Your task to perform on an android device: Add amazon basics triple a to the cart on bestbuy Image 0: 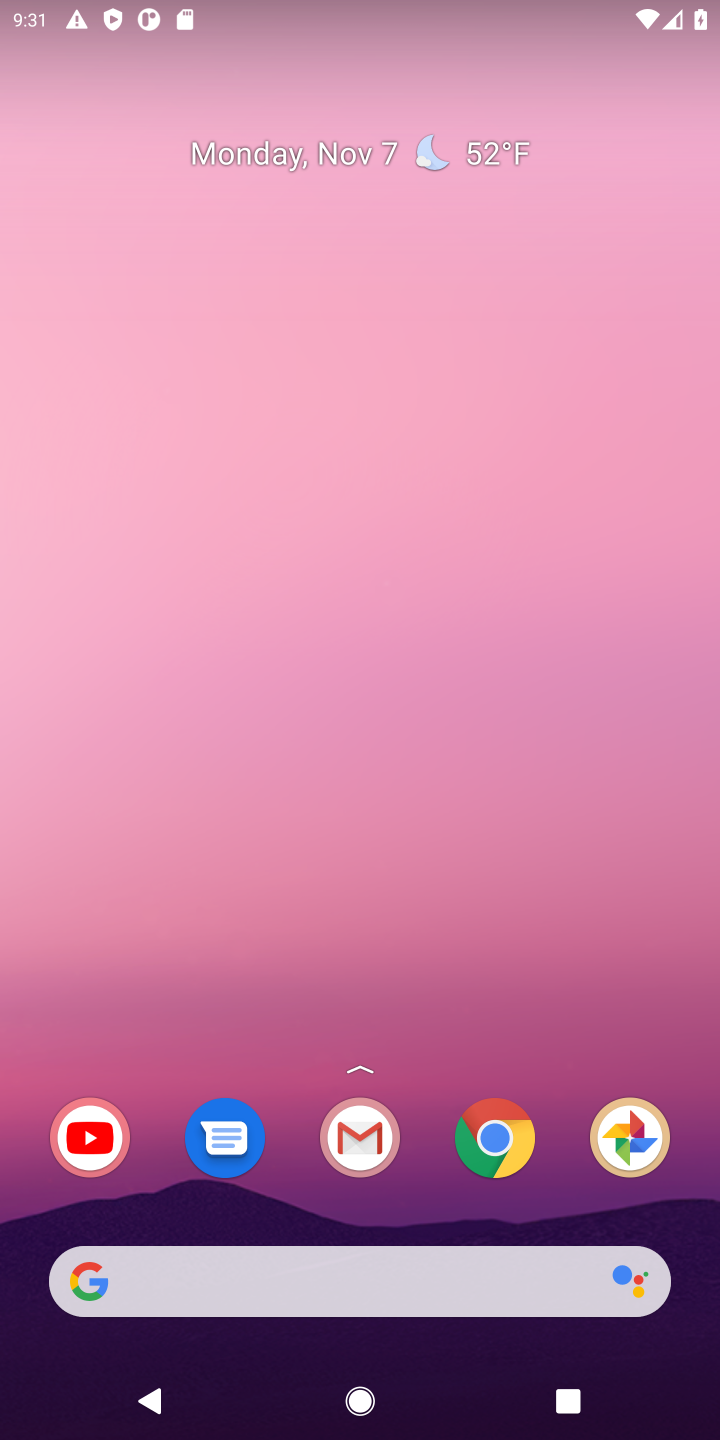
Step 0: click (492, 1150)
Your task to perform on an android device: Add amazon basics triple a to the cart on bestbuy Image 1: 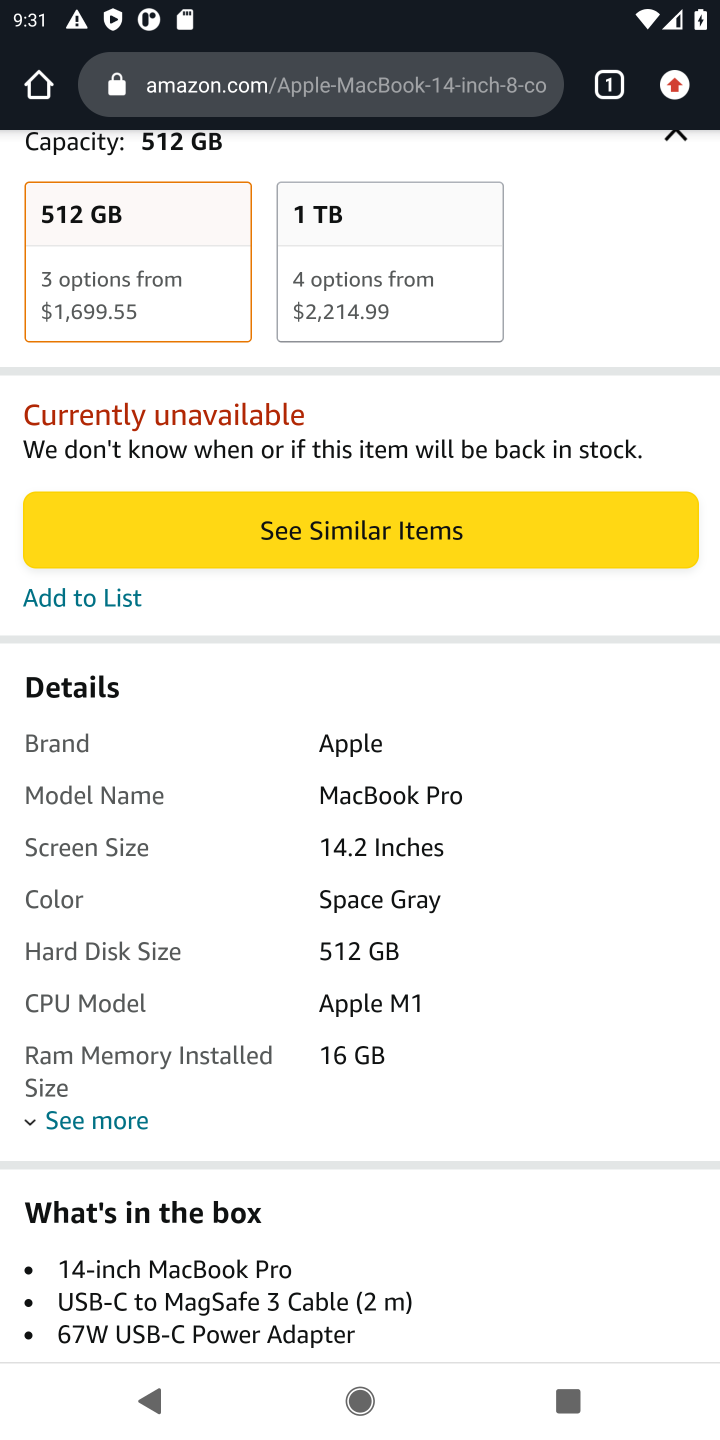
Step 1: click (182, 96)
Your task to perform on an android device: Add amazon basics triple a to the cart on bestbuy Image 2: 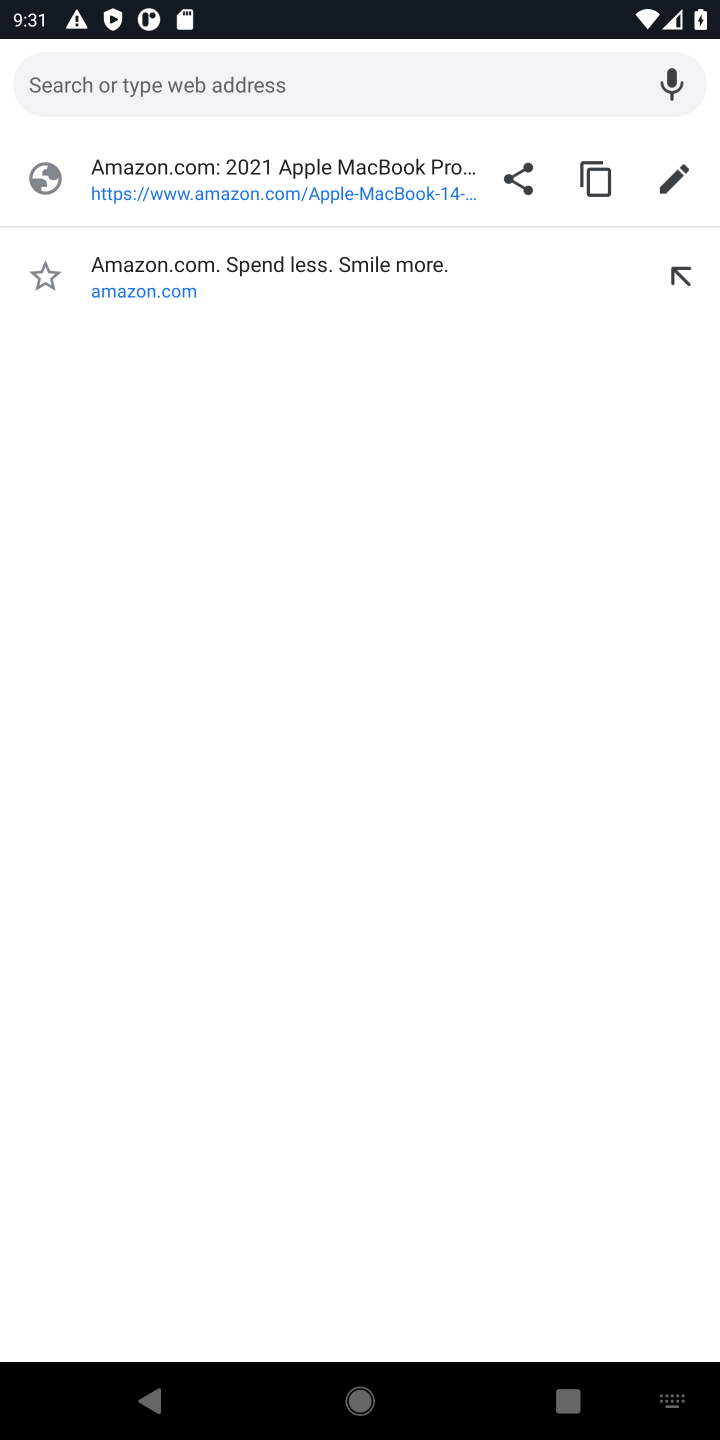
Step 2: type "amazon"
Your task to perform on an android device: Add amazon basics triple a to the cart on bestbuy Image 3: 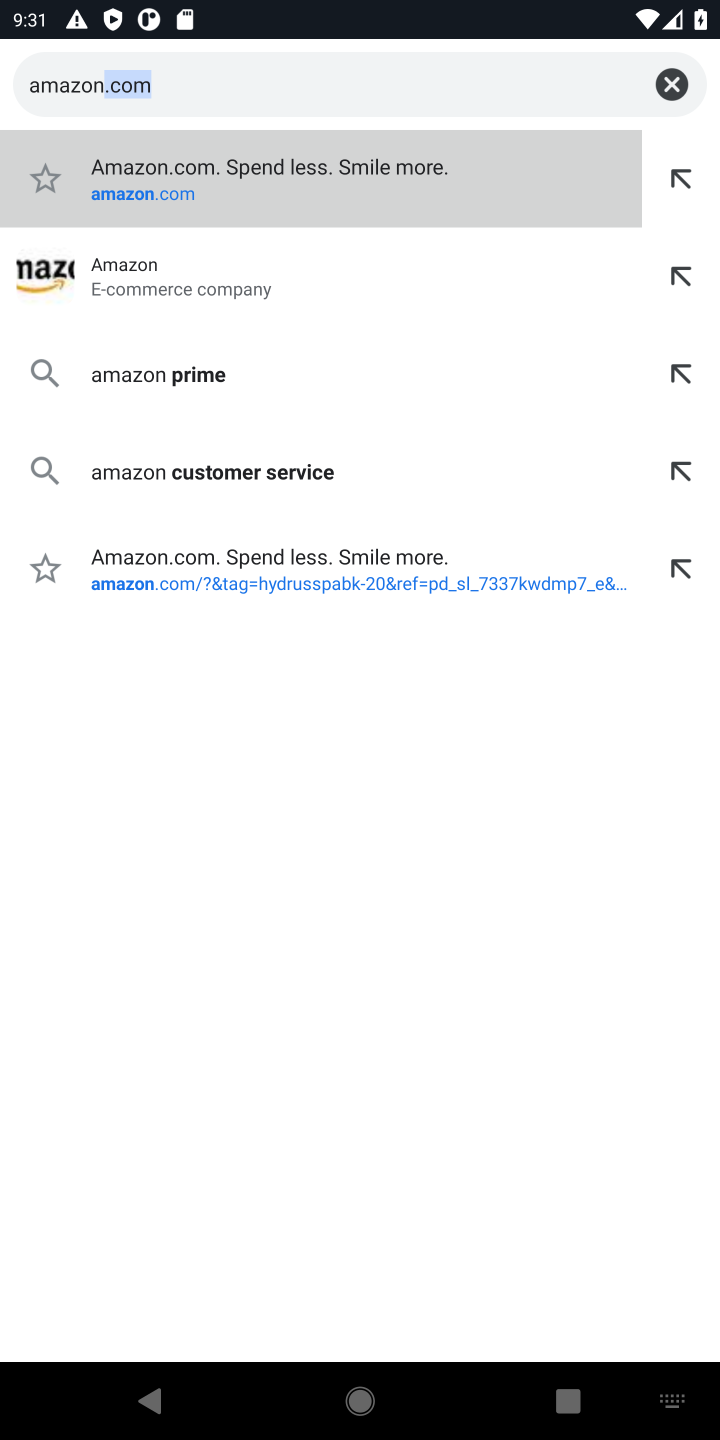
Step 3: click (115, 268)
Your task to perform on an android device: Add amazon basics triple a to the cart on bestbuy Image 4: 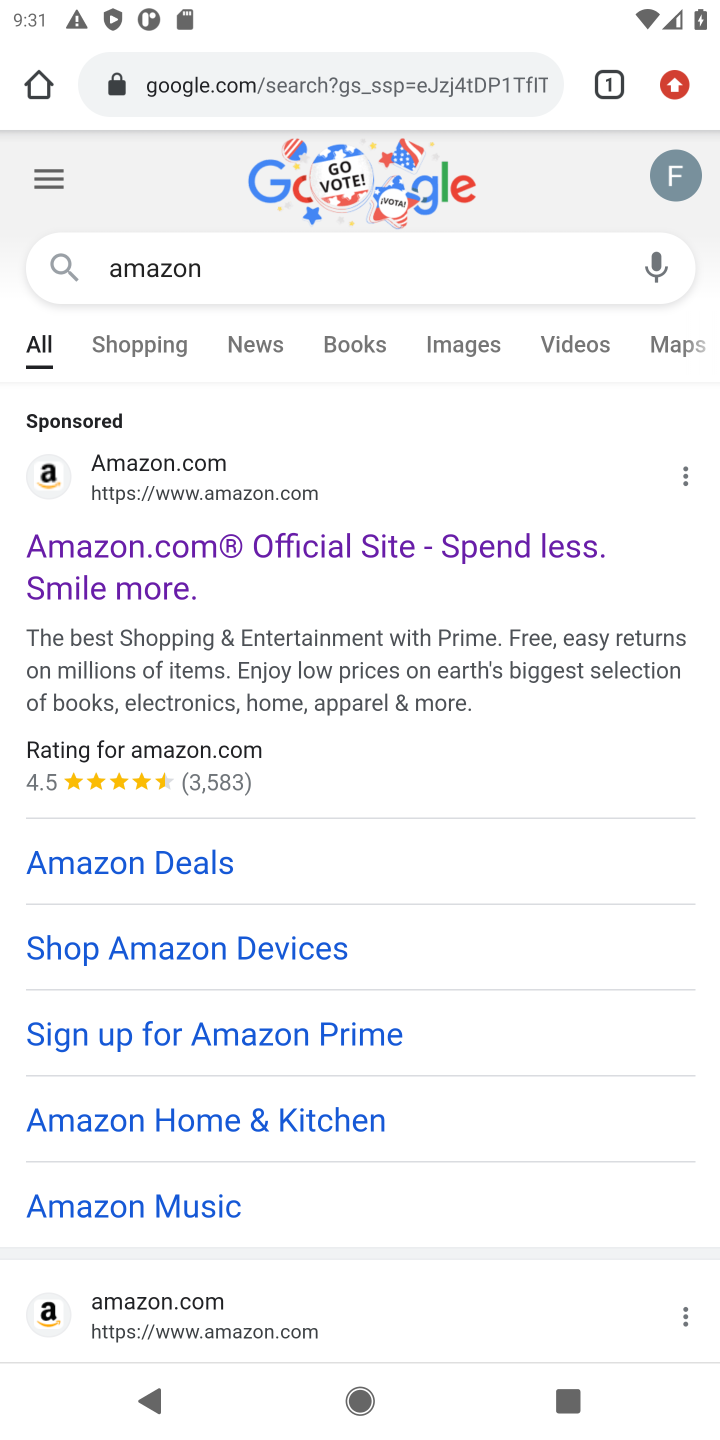
Step 4: click (166, 551)
Your task to perform on an android device: Add amazon basics triple a to the cart on bestbuy Image 5: 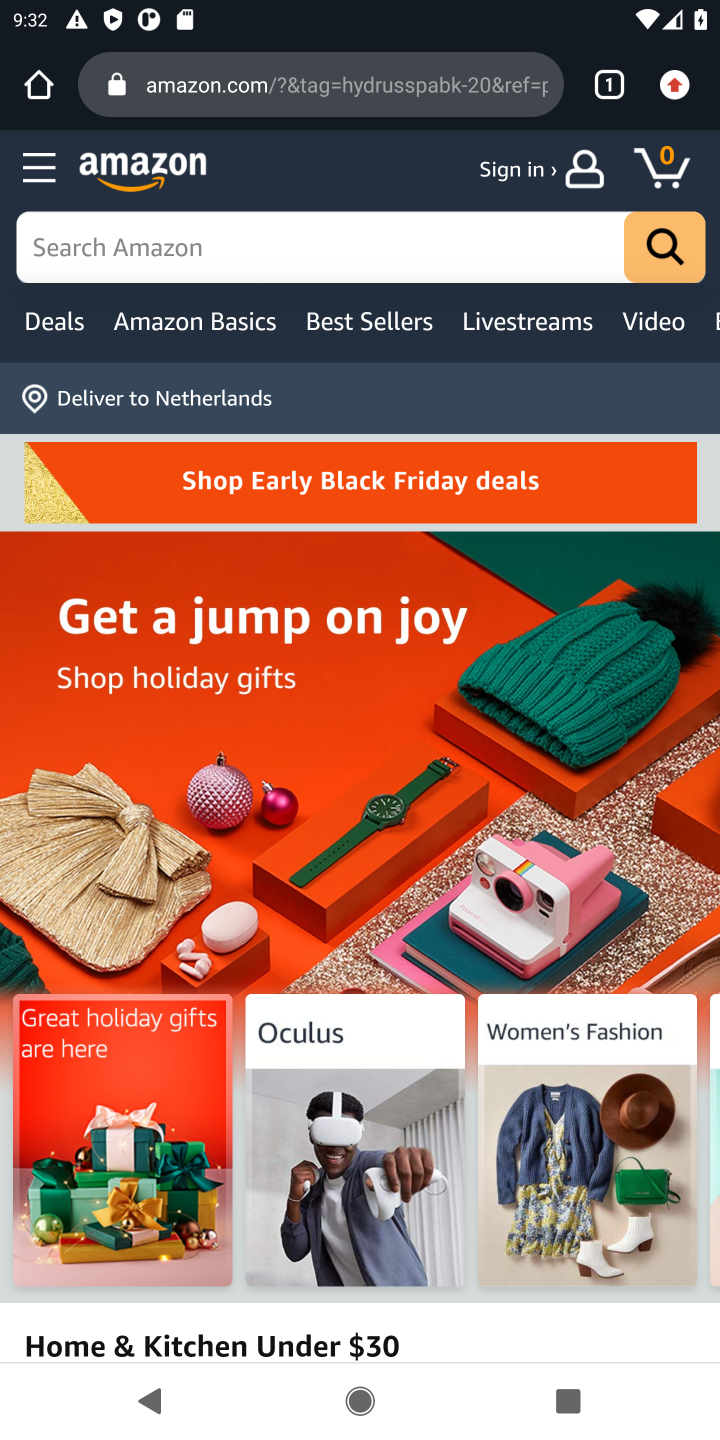
Step 5: click (403, 249)
Your task to perform on an android device: Add amazon basics triple a to the cart on bestbuy Image 6: 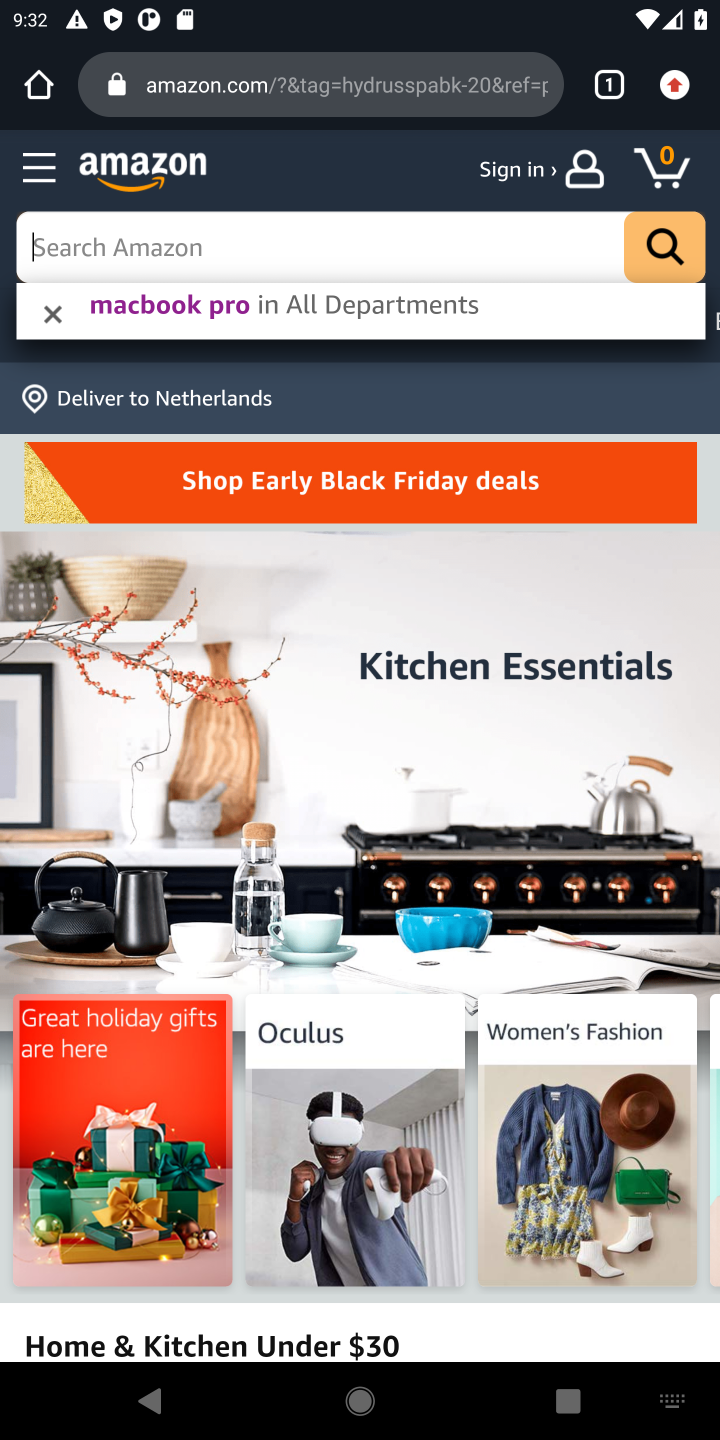
Step 6: type "basic triple "
Your task to perform on an android device: Add amazon basics triple a to the cart on bestbuy Image 7: 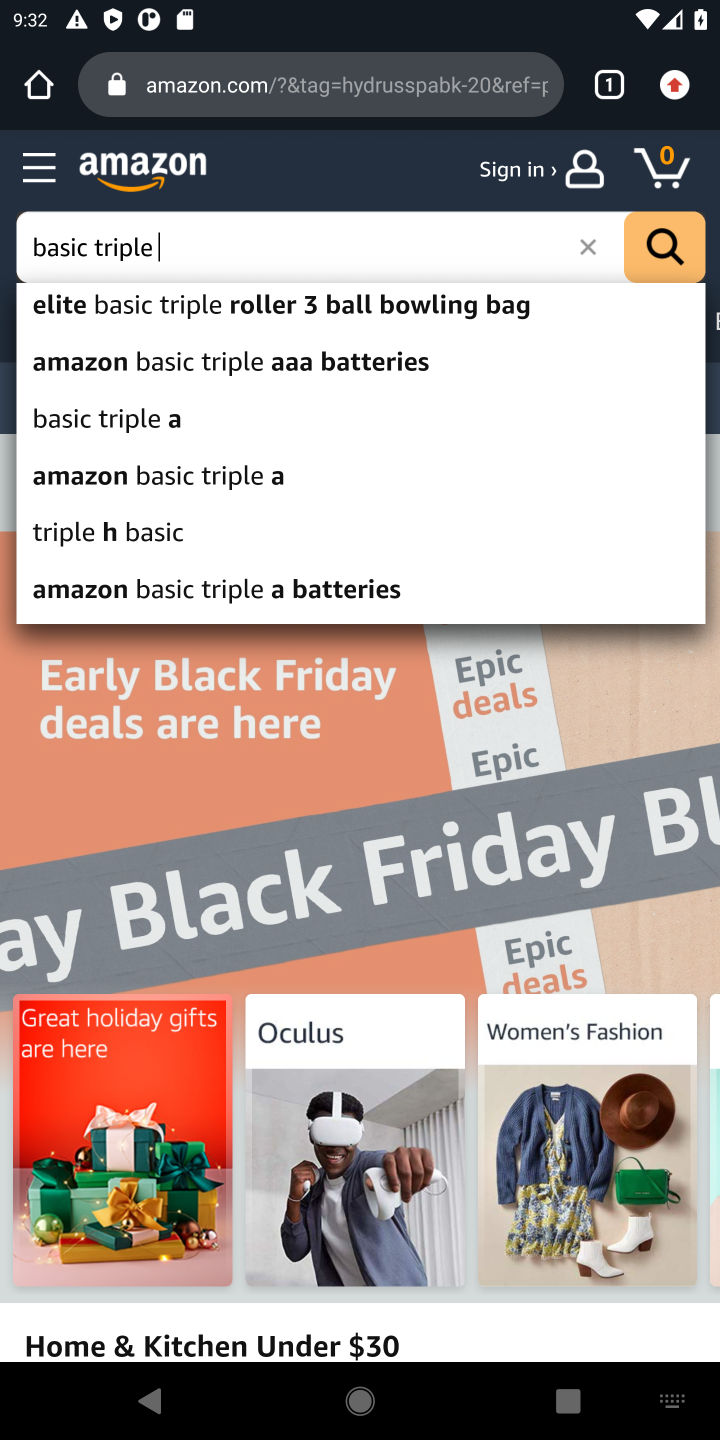
Step 7: click (190, 303)
Your task to perform on an android device: Add amazon basics triple a to the cart on bestbuy Image 8: 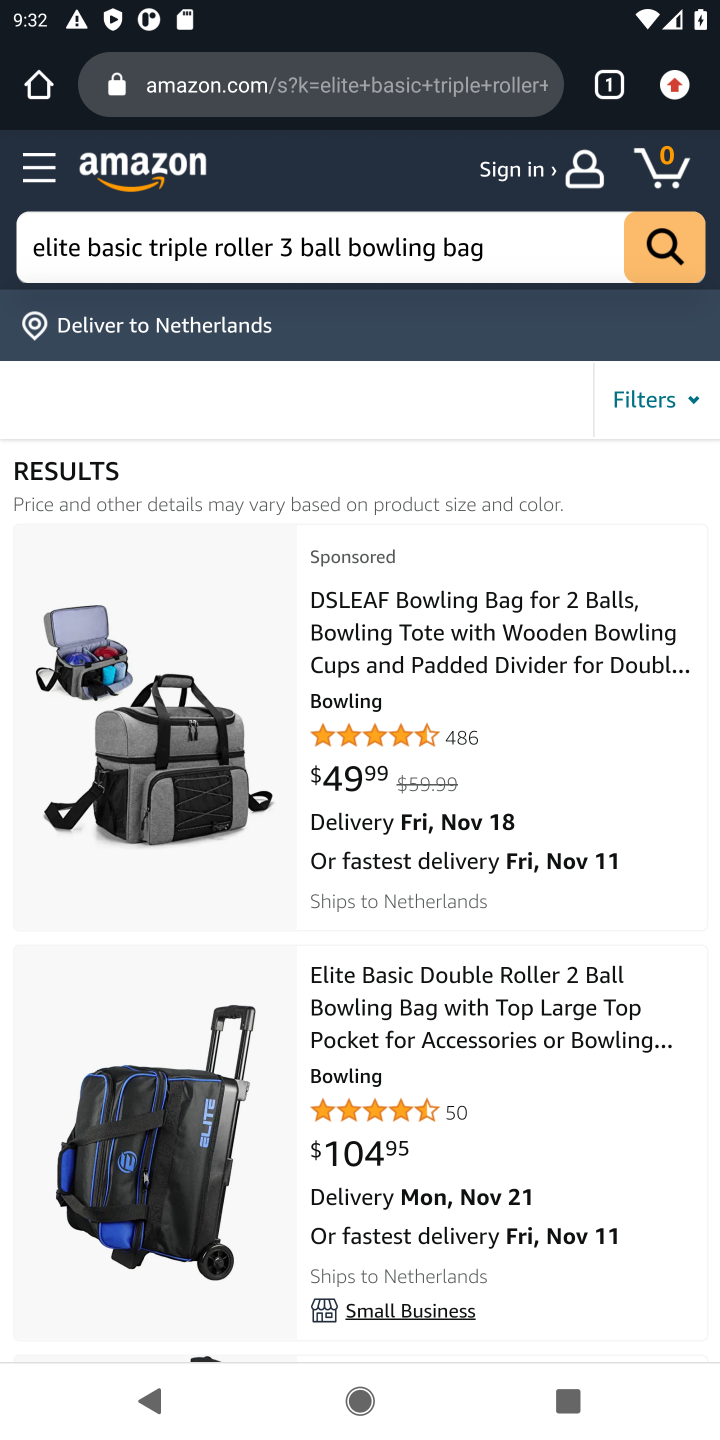
Step 8: click (178, 780)
Your task to perform on an android device: Add amazon basics triple a to the cart on bestbuy Image 9: 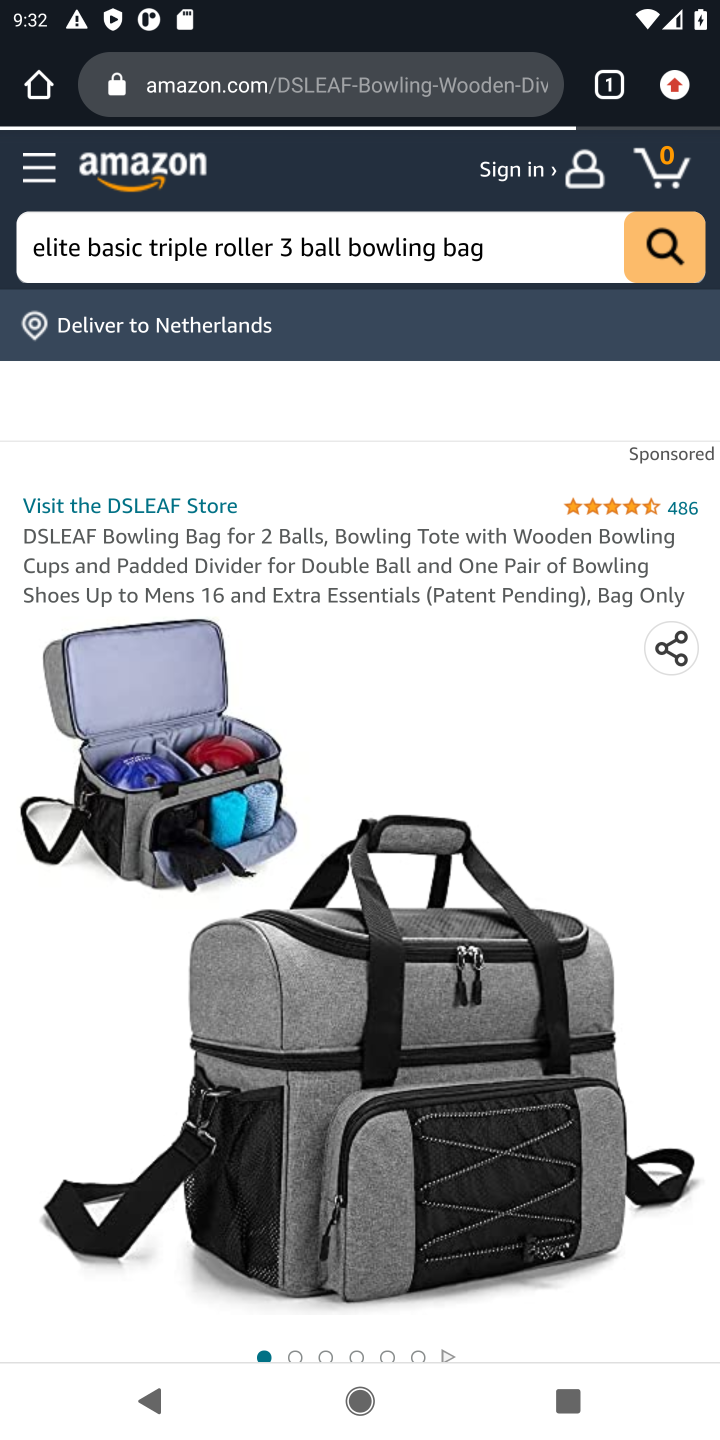
Step 9: drag from (145, 875) to (349, 217)
Your task to perform on an android device: Add amazon basics triple a to the cart on bestbuy Image 10: 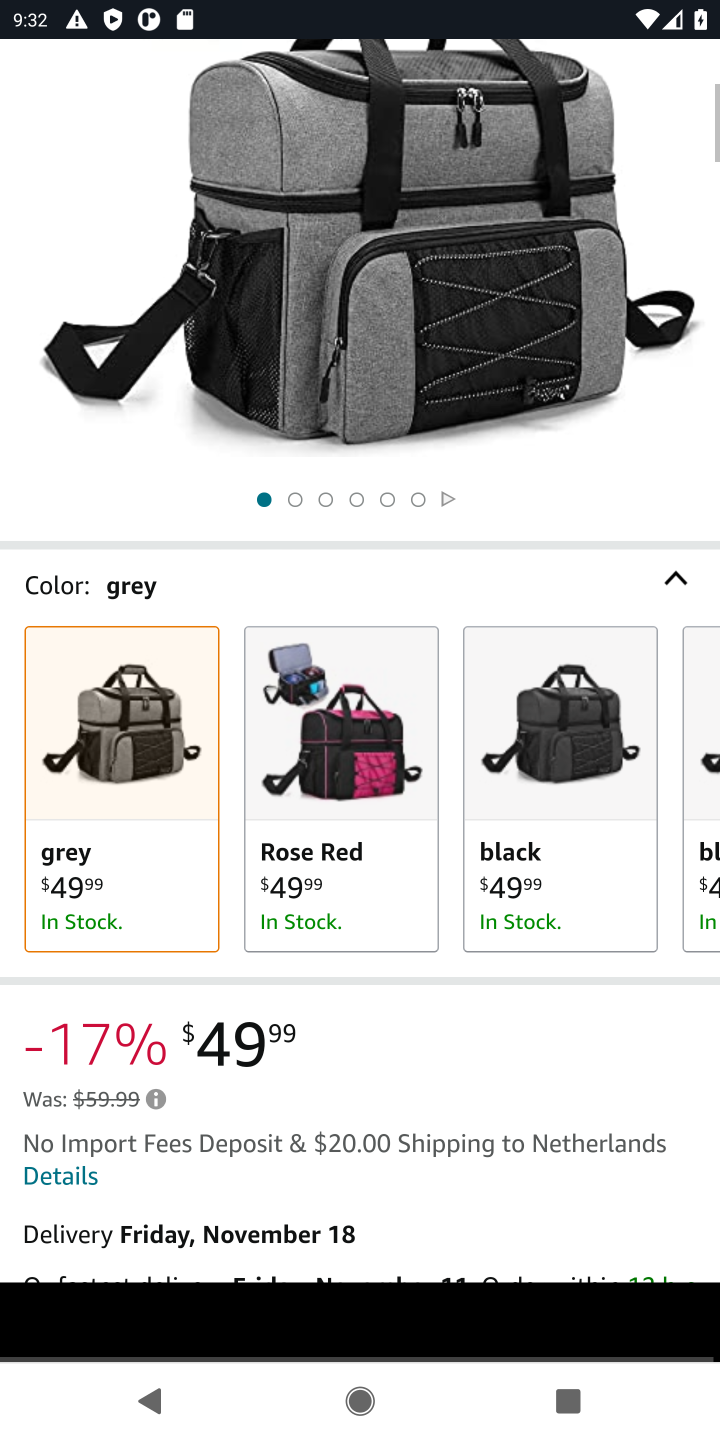
Step 10: drag from (329, 828) to (341, 407)
Your task to perform on an android device: Add amazon basics triple a to the cart on bestbuy Image 11: 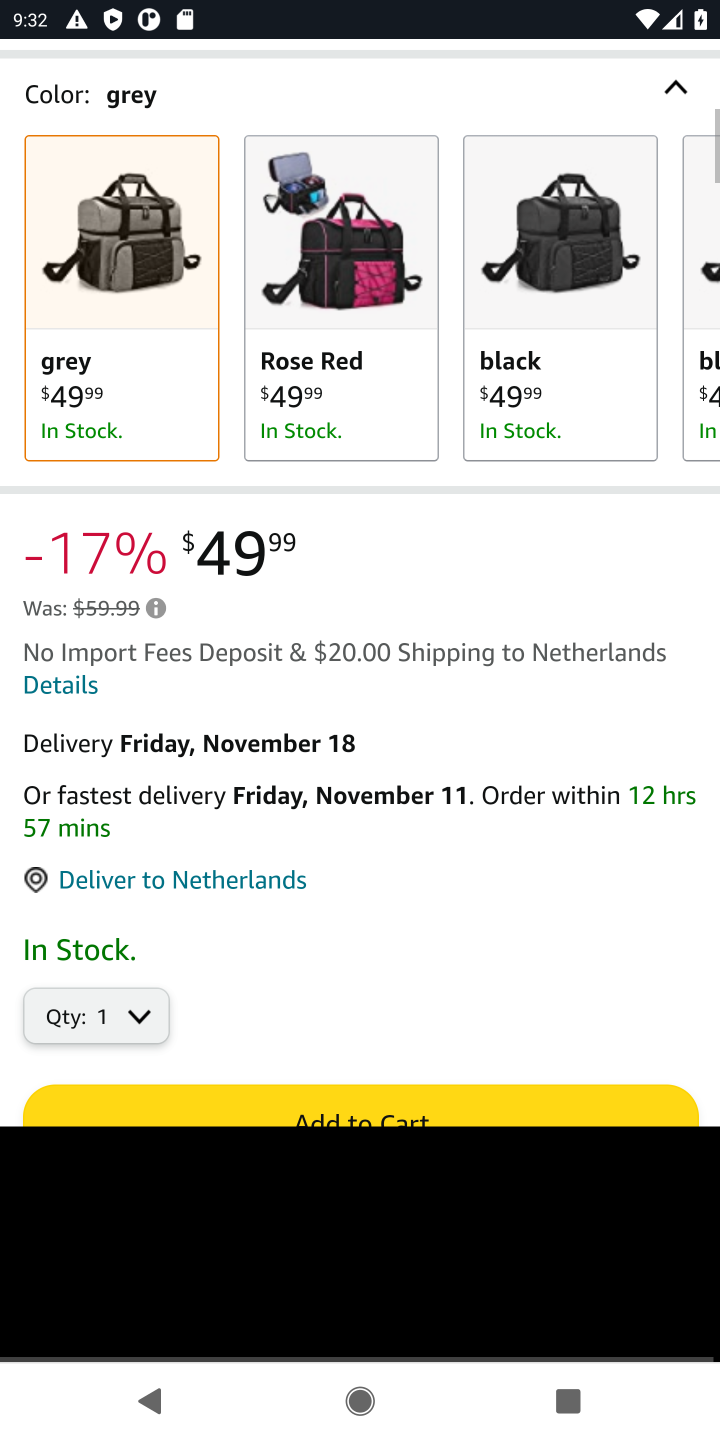
Step 11: drag from (269, 1071) to (327, 388)
Your task to perform on an android device: Add amazon basics triple a to the cart on bestbuy Image 12: 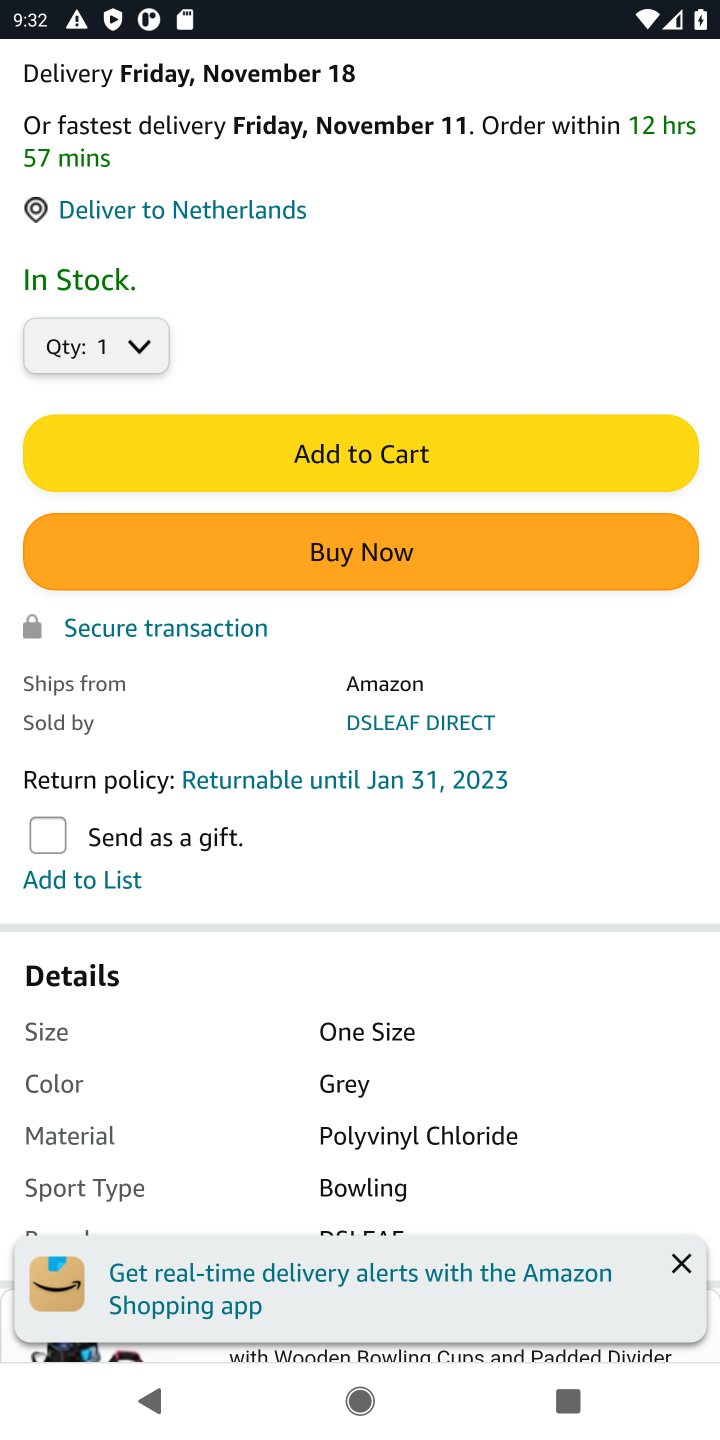
Step 12: click (358, 452)
Your task to perform on an android device: Add amazon basics triple a to the cart on bestbuy Image 13: 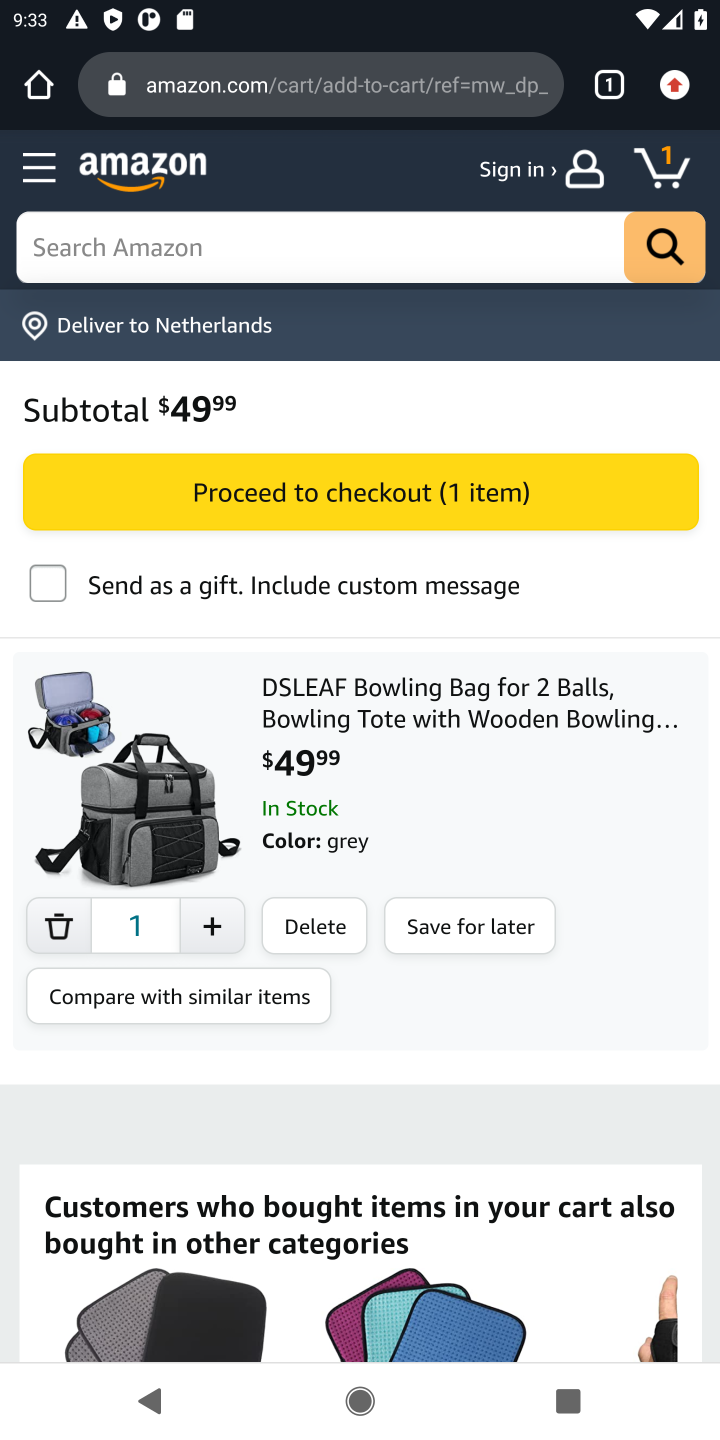
Step 13: task complete